Your task to perform on an android device: When is my next meeting? Image 0: 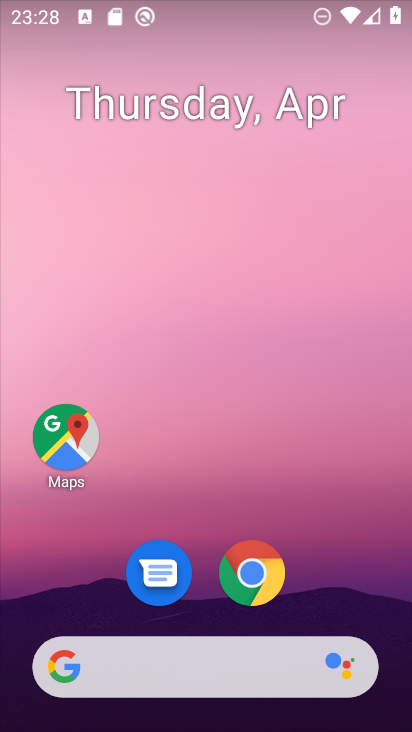
Step 0: drag from (303, 608) to (292, 49)
Your task to perform on an android device: When is my next meeting? Image 1: 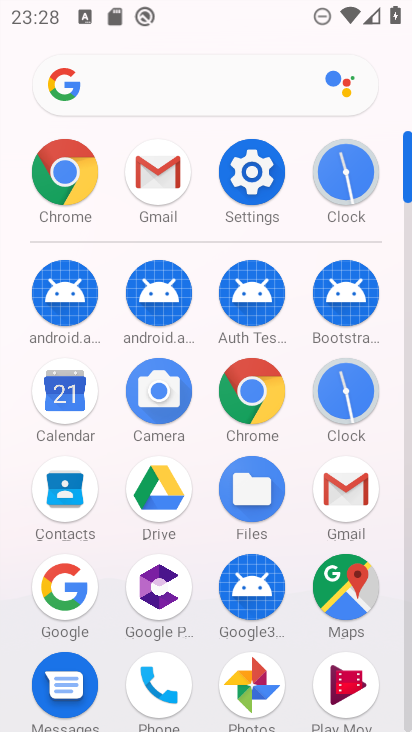
Step 1: click (76, 390)
Your task to perform on an android device: When is my next meeting? Image 2: 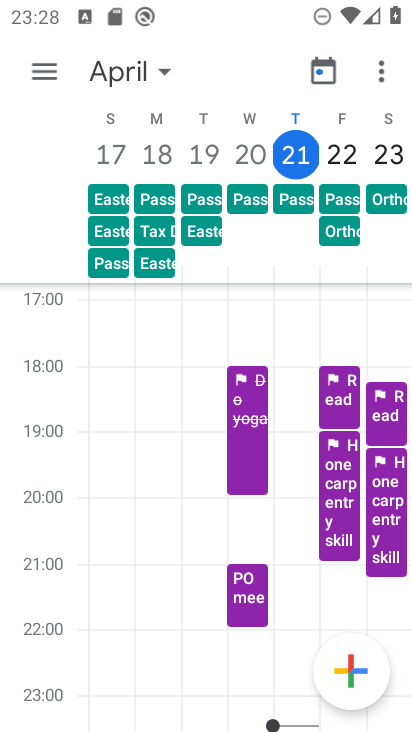
Step 2: click (35, 80)
Your task to perform on an android device: When is my next meeting? Image 3: 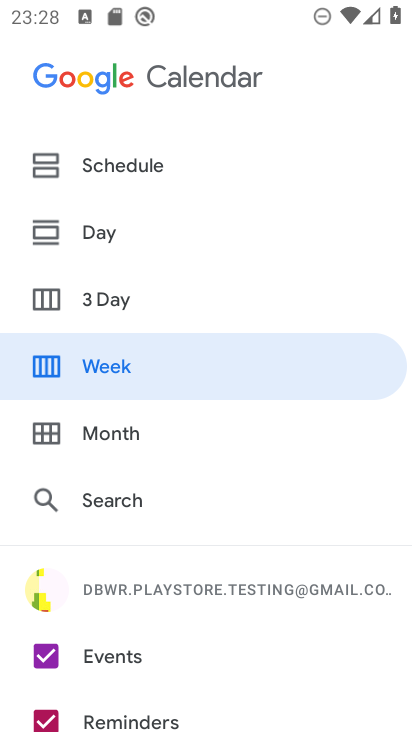
Step 3: click (124, 233)
Your task to perform on an android device: When is my next meeting? Image 4: 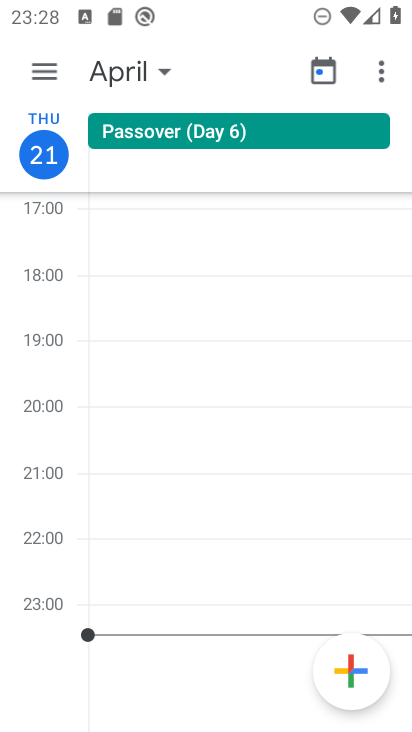
Step 4: click (165, 66)
Your task to perform on an android device: When is my next meeting? Image 5: 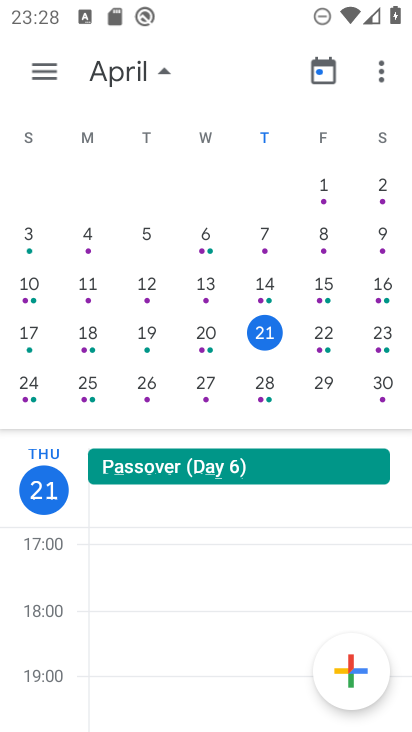
Step 5: task complete